Your task to perform on an android device: allow cookies in the chrome app Image 0: 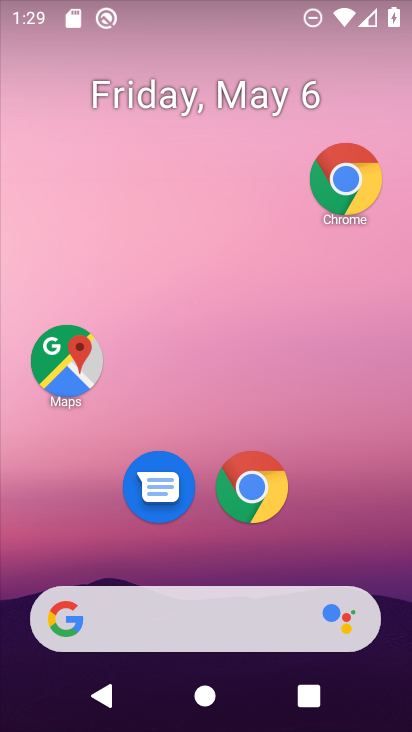
Step 0: click (282, 495)
Your task to perform on an android device: allow cookies in the chrome app Image 1: 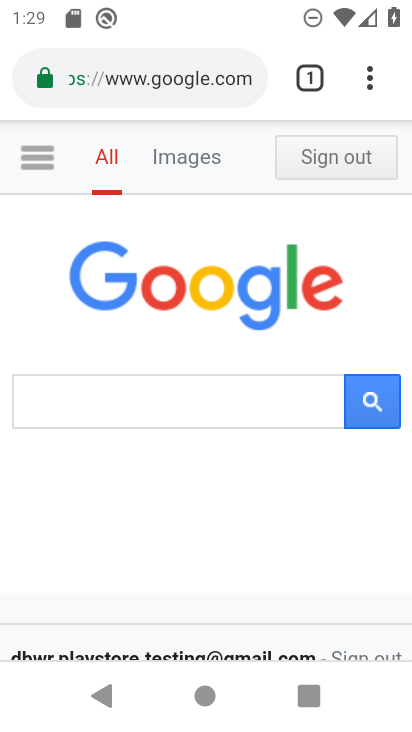
Step 1: click (369, 79)
Your task to perform on an android device: allow cookies in the chrome app Image 2: 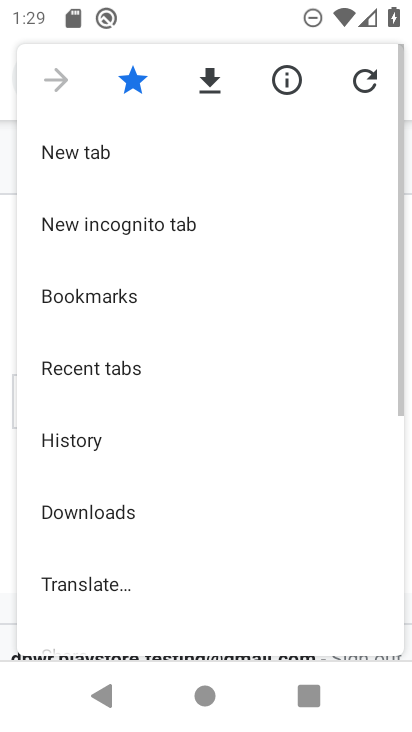
Step 2: drag from (204, 416) to (240, 252)
Your task to perform on an android device: allow cookies in the chrome app Image 3: 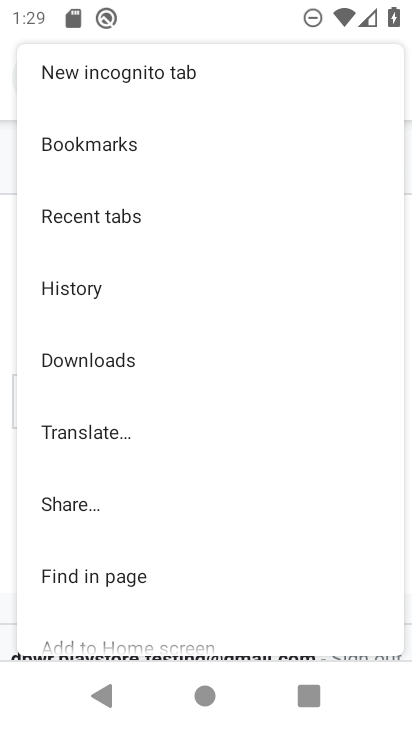
Step 3: drag from (139, 502) to (174, 303)
Your task to perform on an android device: allow cookies in the chrome app Image 4: 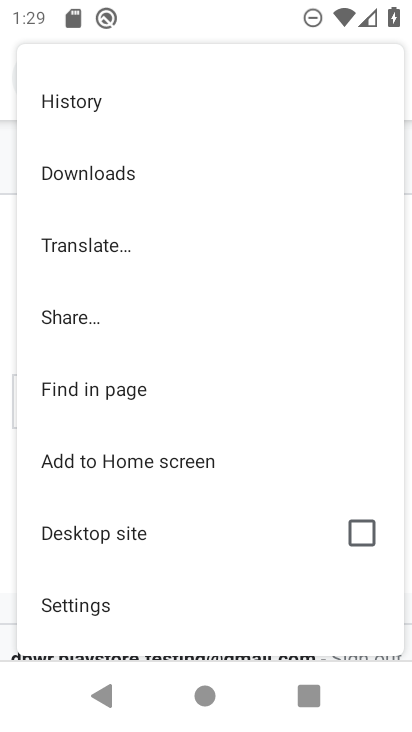
Step 4: drag from (135, 561) to (163, 465)
Your task to perform on an android device: allow cookies in the chrome app Image 5: 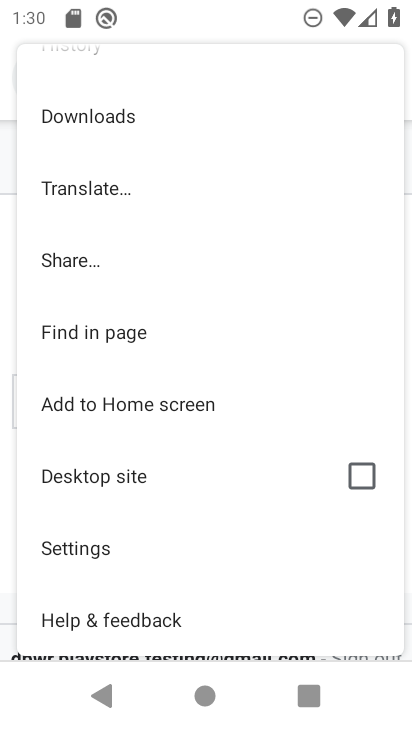
Step 5: click (132, 549)
Your task to perform on an android device: allow cookies in the chrome app Image 6: 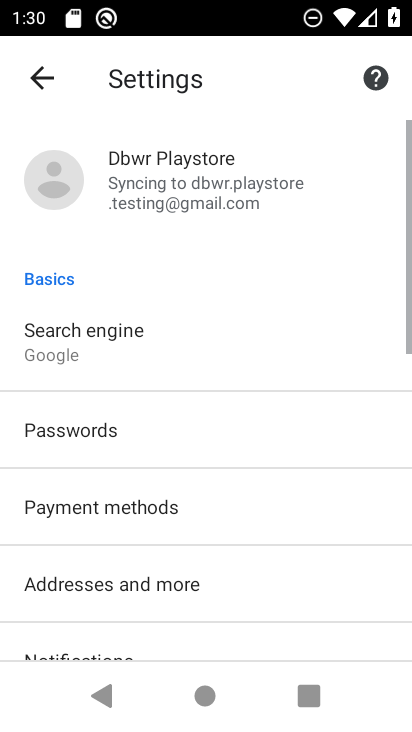
Step 6: task complete